Your task to perform on an android device: Open Youtube and go to the subscriptions tab Image 0: 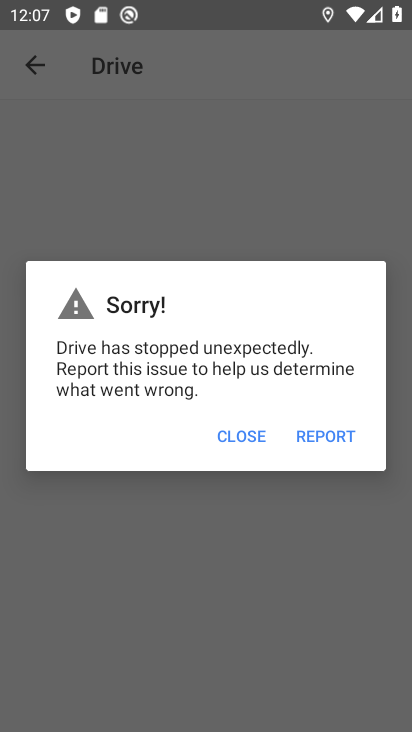
Step 0: press home button
Your task to perform on an android device: Open Youtube and go to the subscriptions tab Image 1: 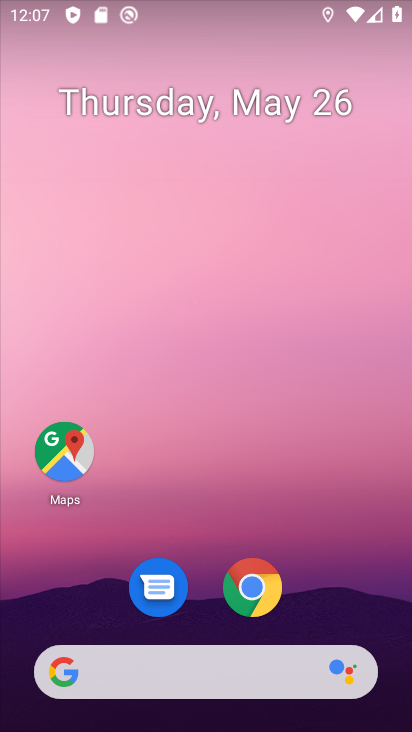
Step 1: drag from (365, 619) to (382, 189)
Your task to perform on an android device: Open Youtube and go to the subscriptions tab Image 2: 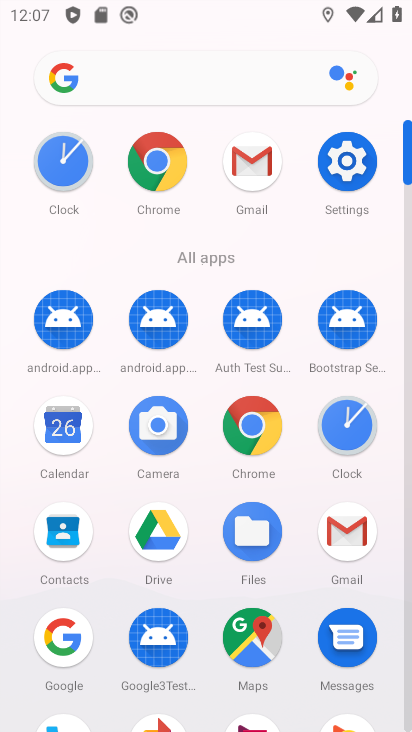
Step 2: drag from (288, 603) to (313, 293)
Your task to perform on an android device: Open Youtube and go to the subscriptions tab Image 3: 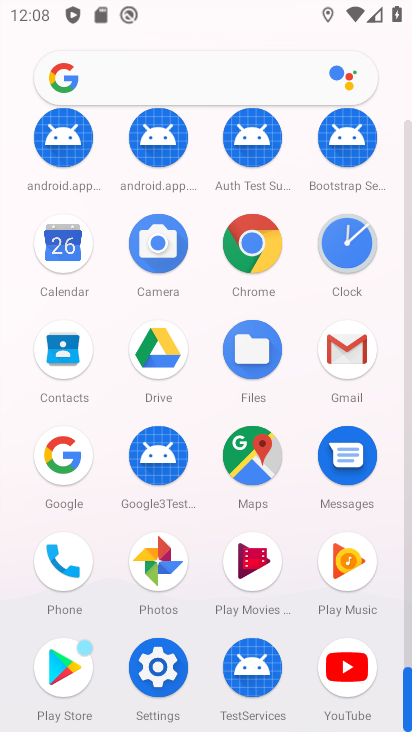
Step 3: click (351, 669)
Your task to perform on an android device: Open Youtube and go to the subscriptions tab Image 4: 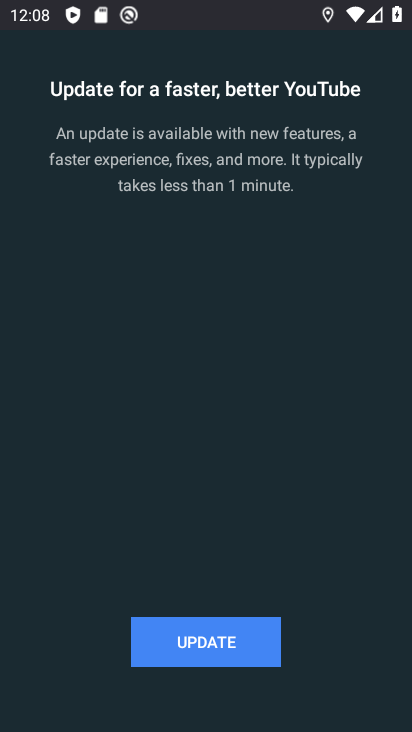
Step 4: click (238, 645)
Your task to perform on an android device: Open Youtube and go to the subscriptions tab Image 5: 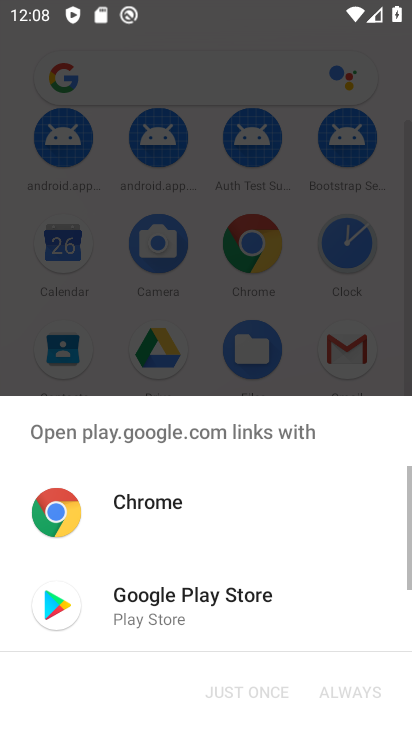
Step 5: click (205, 611)
Your task to perform on an android device: Open Youtube and go to the subscriptions tab Image 6: 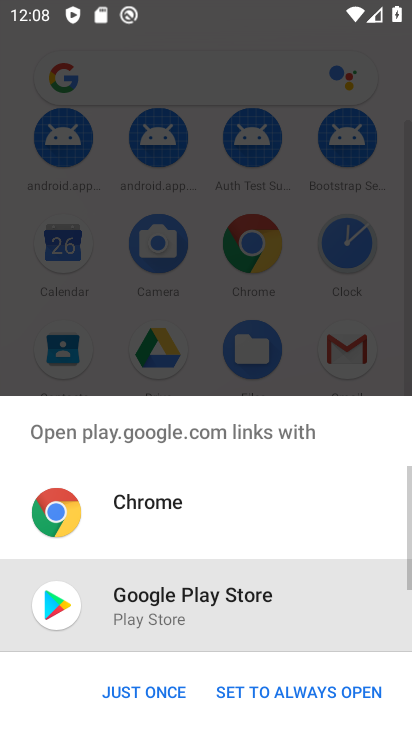
Step 6: click (177, 691)
Your task to perform on an android device: Open Youtube and go to the subscriptions tab Image 7: 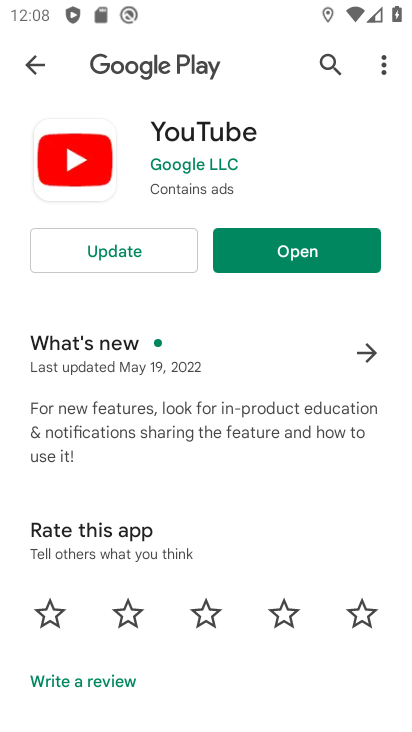
Step 7: click (132, 242)
Your task to perform on an android device: Open Youtube and go to the subscriptions tab Image 8: 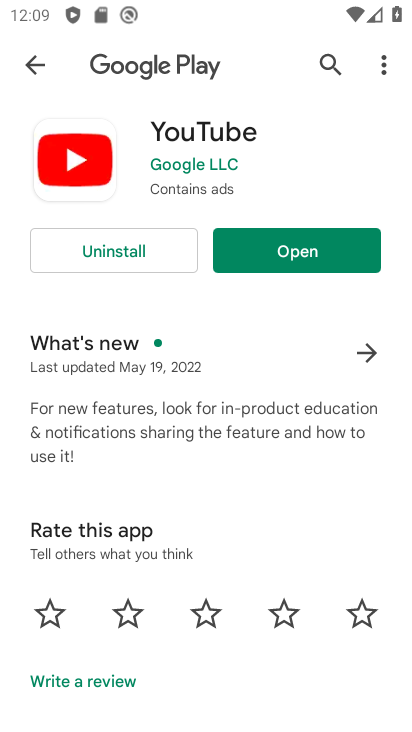
Step 8: click (336, 249)
Your task to perform on an android device: Open Youtube and go to the subscriptions tab Image 9: 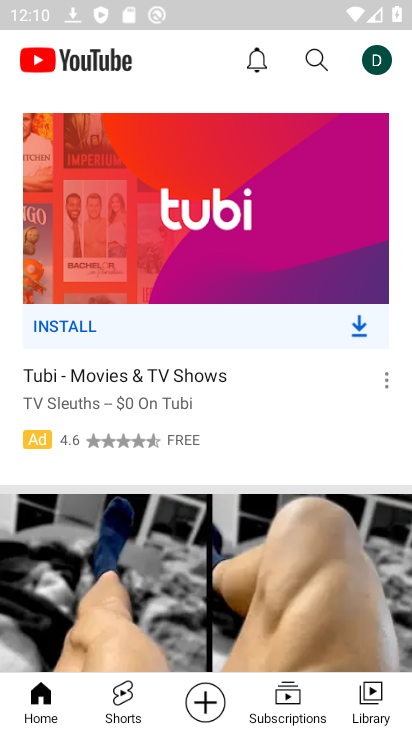
Step 9: click (278, 715)
Your task to perform on an android device: Open Youtube and go to the subscriptions tab Image 10: 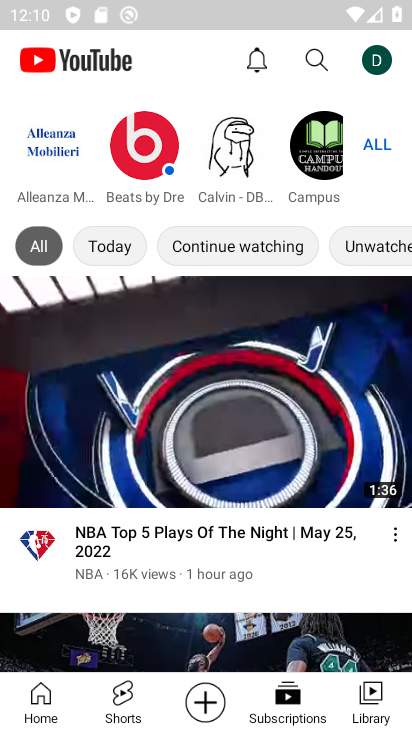
Step 10: task complete